Your task to perform on an android device: Go to Maps Image 0: 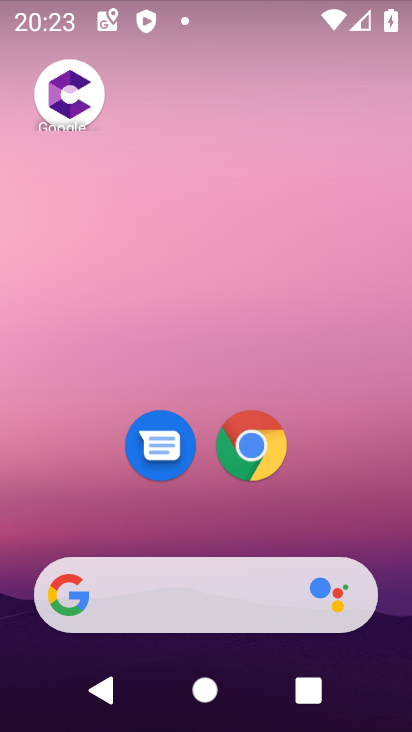
Step 0: drag from (261, 473) to (279, 211)
Your task to perform on an android device: Go to Maps Image 1: 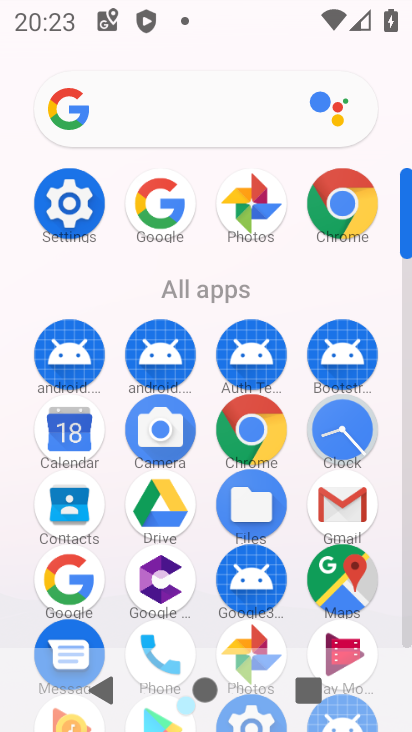
Step 1: click (349, 573)
Your task to perform on an android device: Go to Maps Image 2: 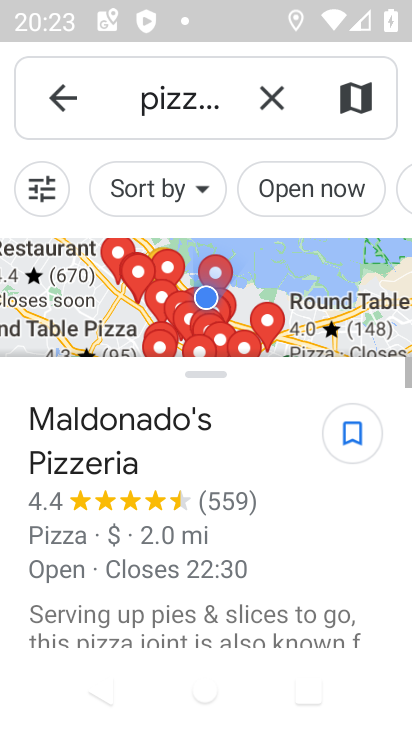
Step 2: click (268, 94)
Your task to perform on an android device: Go to Maps Image 3: 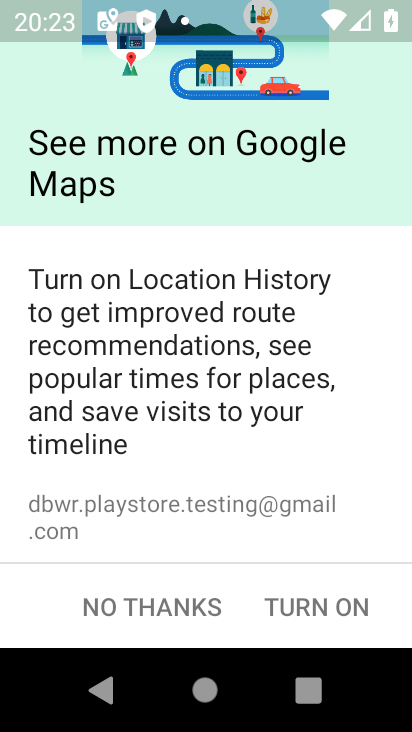
Step 3: click (92, 593)
Your task to perform on an android device: Go to Maps Image 4: 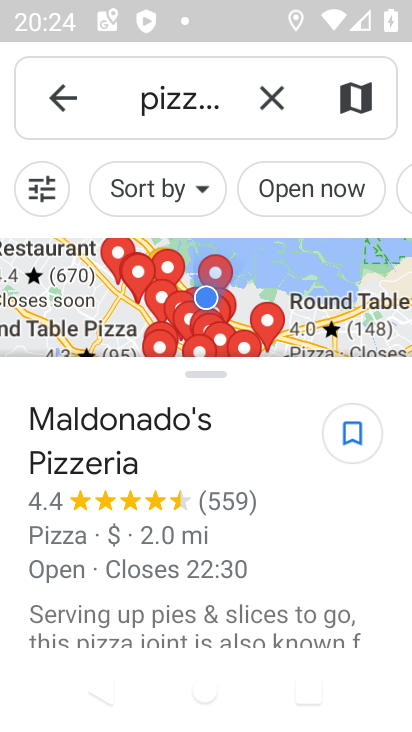
Step 4: task complete